Your task to perform on an android device: Open the calendar app, open the side menu, and click the "Day" option Image 0: 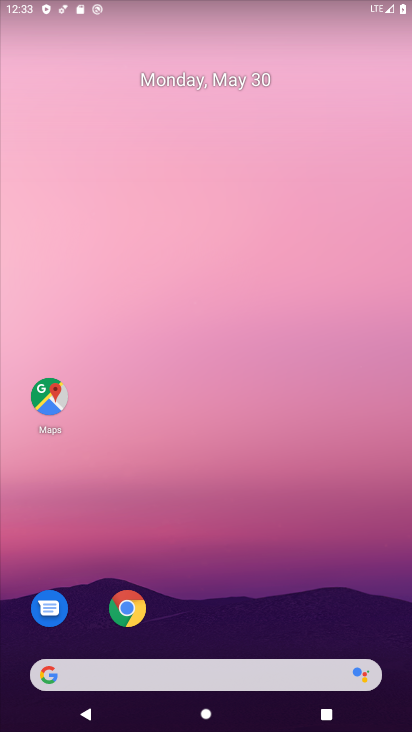
Step 0: drag from (235, 623) to (261, 49)
Your task to perform on an android device: Open the calendar app, open the side menu, and click the "Day" option Image 1: 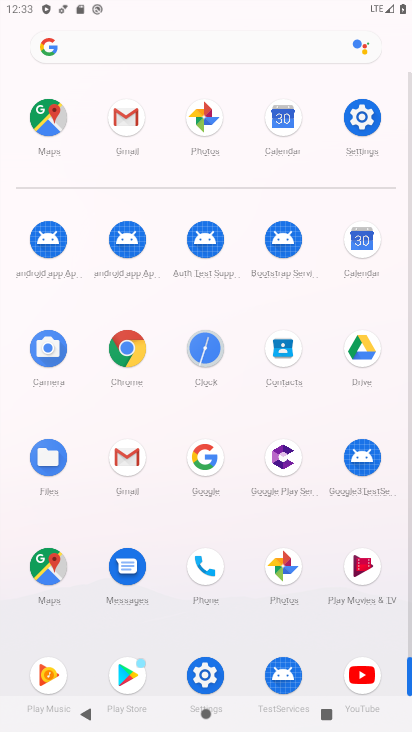
Step 1: click (355, 237)
Your task to perform on an android device: Open the calendar app, open the side menu, and click the "Day" option Image 2: 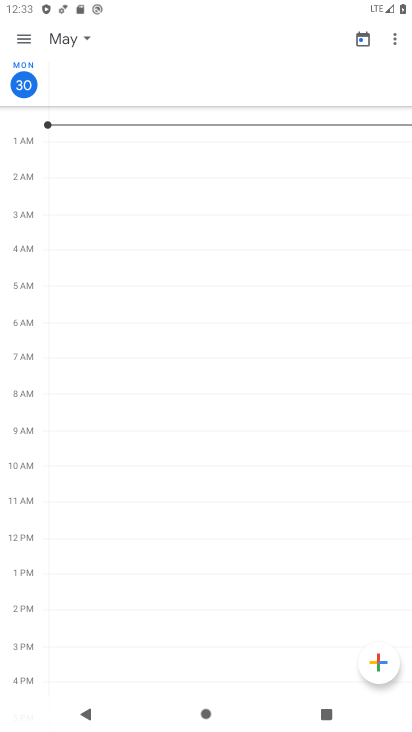
Step 2: click (19, 43)
Your task to perform on an android device: Open the calendar app, open the side menu, and click the "Day" option Image 3: 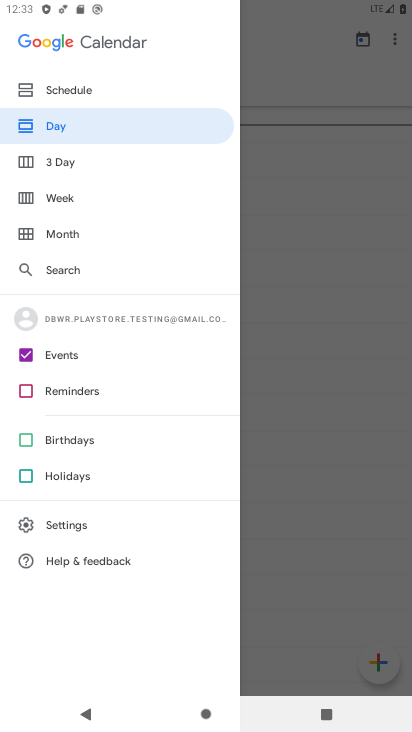
Step 3: click (76, 136)
Your task to perform on an android device: Open the calendar app, open the side menu, and click the "Day" option Image 4: 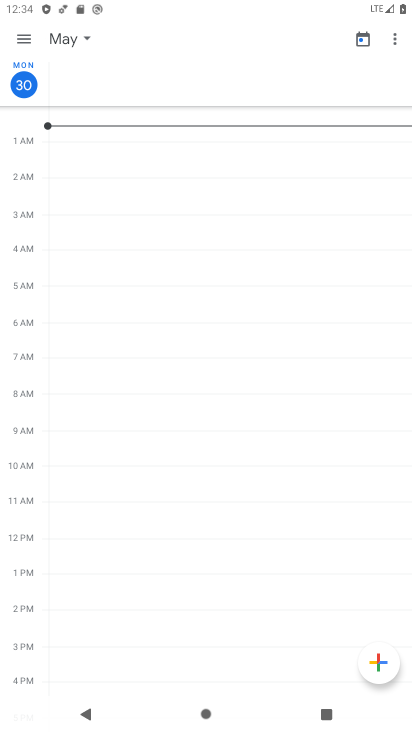
Step 4: task complete